Your task to perform on an android device: Open display settings Image 0: 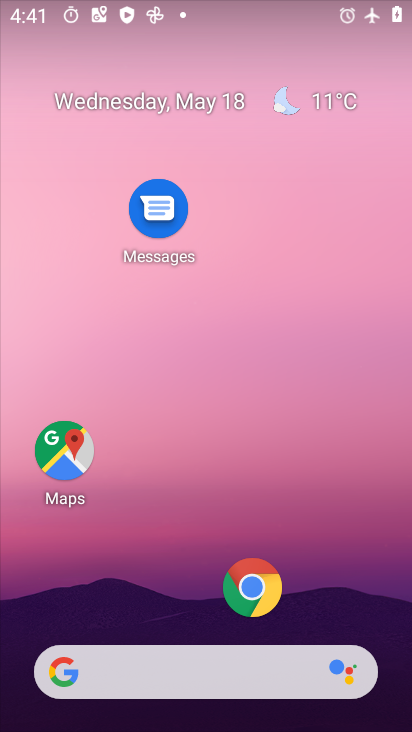
Step 0: drag from (179, 553) to (232, 101)
Your task to perform on an android device: Open display settings Image 1: 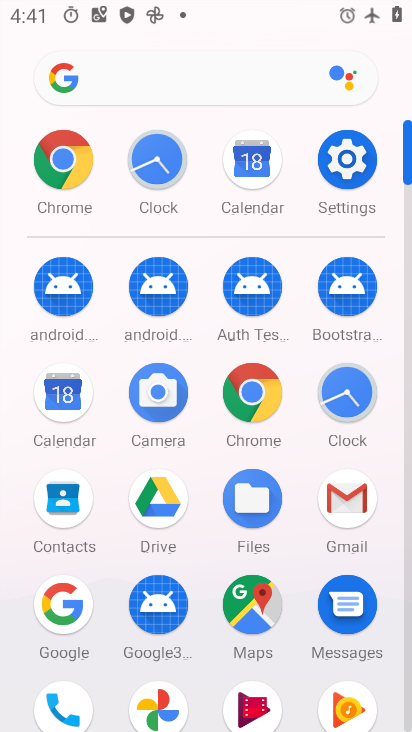
Step 1: drag from (252, 486) to (269, 308)
Your task to perform on an android device: Open display settings Image 2: 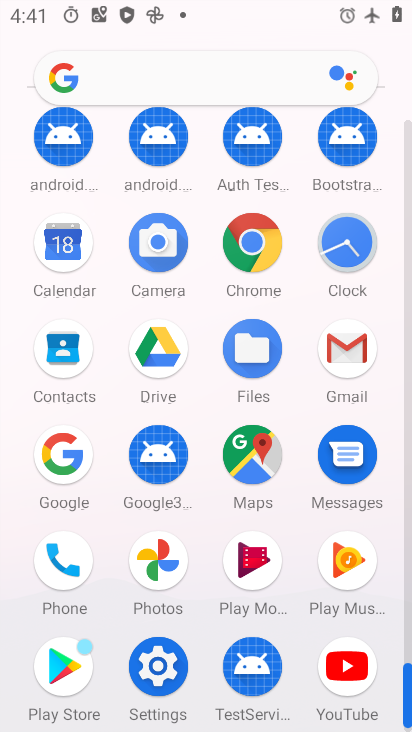
Step 2: drag from (236, 408) to (240, 200)
Your task to perform on an android device: Open display settings Image 3: 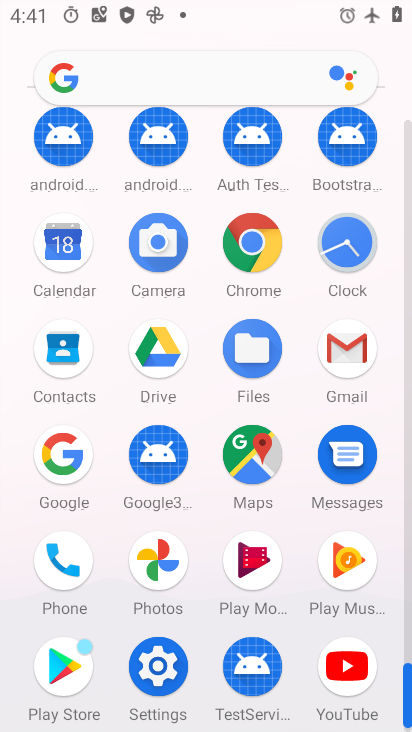
Step 3: click (171, 673)
Your task to perform on an android device: Open display settings Image 4: 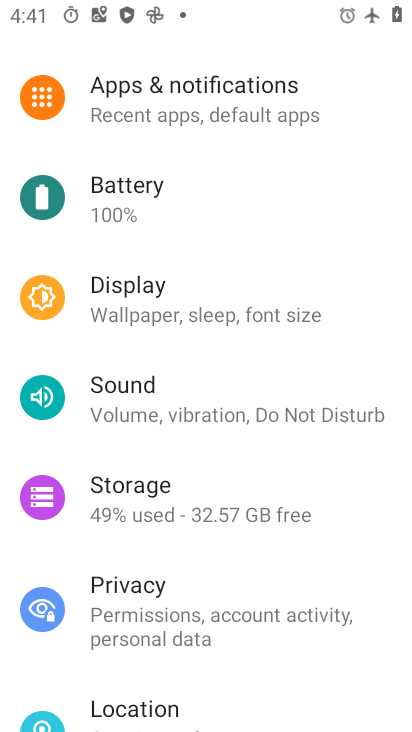
Step 4: drag from (171, 673) to (178, 580)
Your task to perform on an android device: Open display settings Image 5: 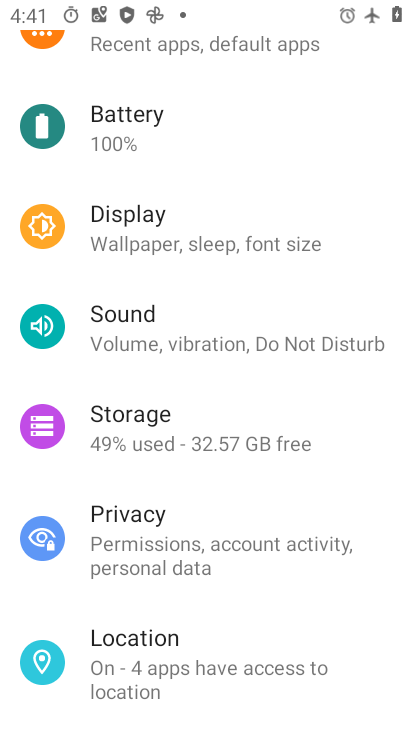
Step 5: click (240, 237)
Your task to perform on an android device: Open display settings Image 6: 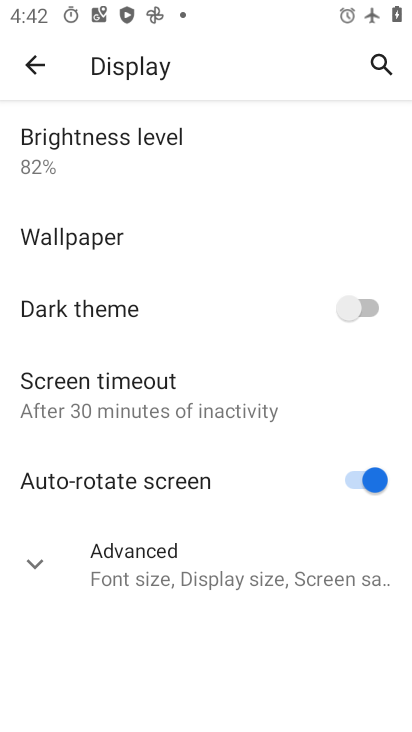
Step 6: task complete